Your task to perform on an android device: Go to sound settings Image 0: 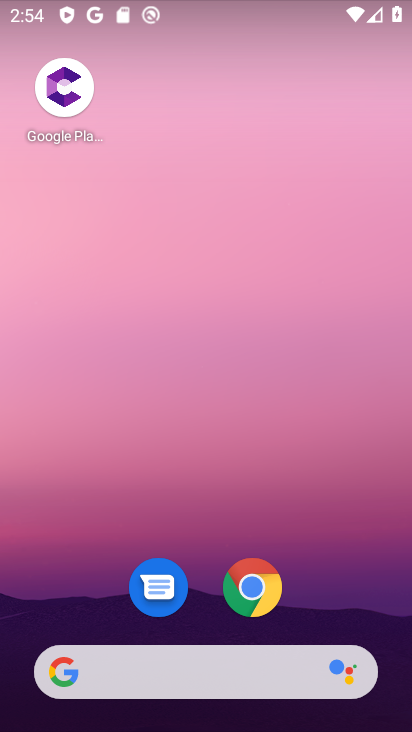
Step 0: press home button
Your task to perform on an android device: Go to sound settings Image 1: 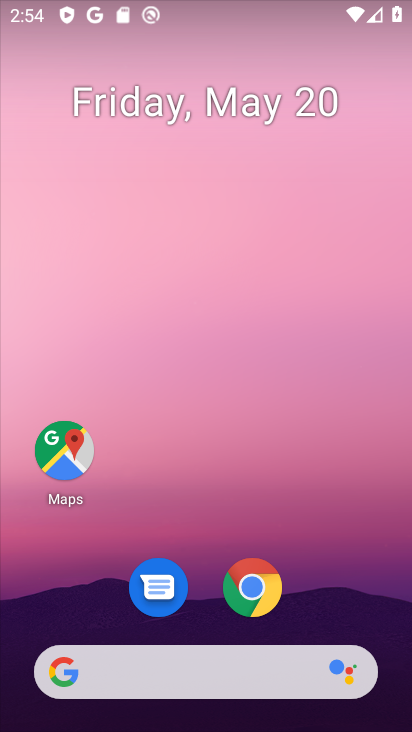
Step 1: drag from (135, 664) to (277, 236)
Your task to perform on an android device: Go to sound settings Image 2: 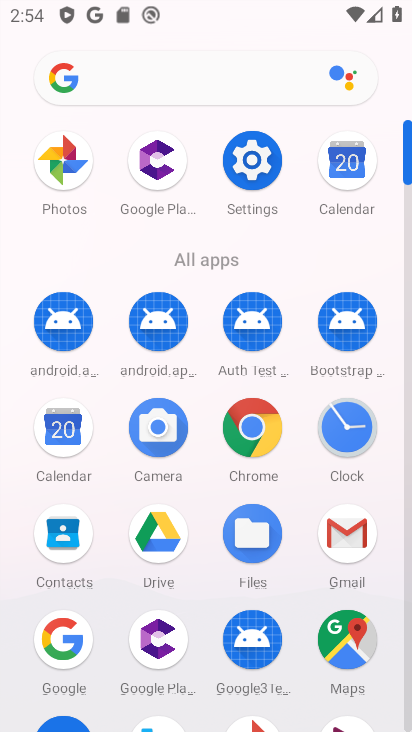
Step 2: click (263, 172)
Your task to perform on an android device: Go to sound settings Image 3: 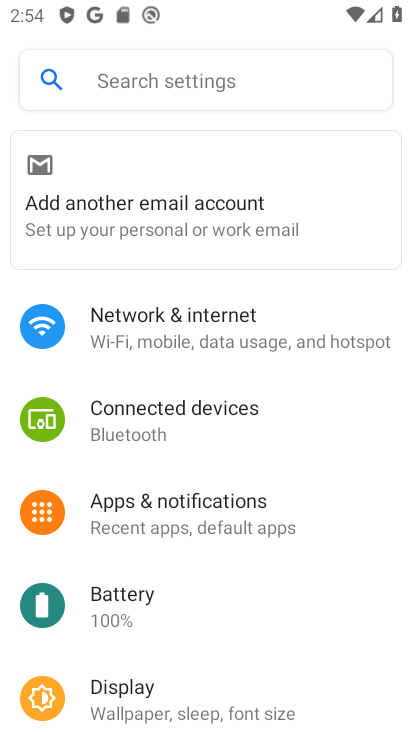
Step 3: drag from (225, 613) to (309, 293)
Your task to perform on an android device: Go to sound settings Image 4: 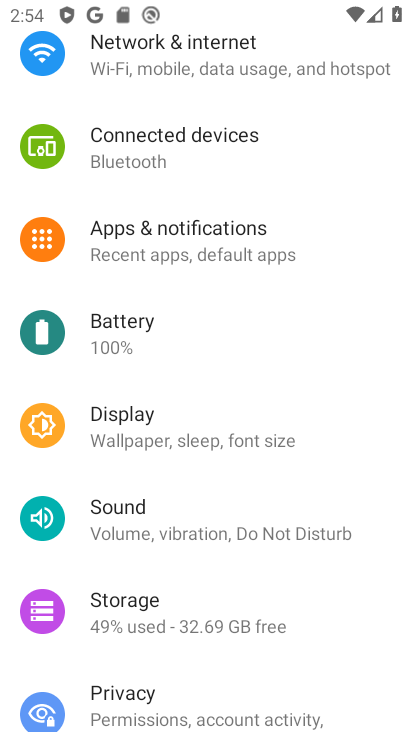
Step 4: click (128, 526)
Your task to perform on an android device: Go to sound settings Image 5: 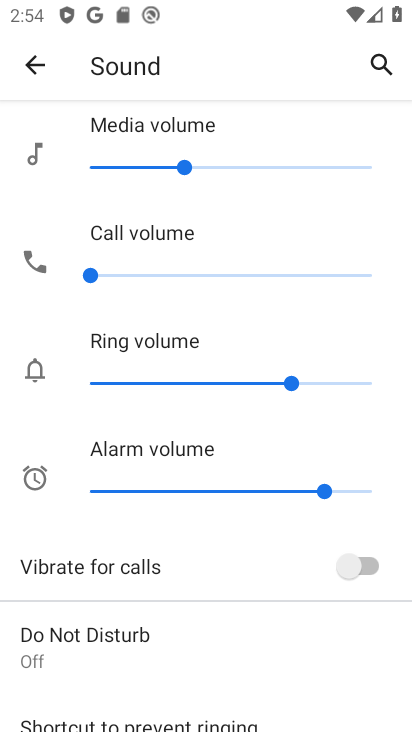
Step 5: task complete